Your task to perform on an android device: Check the weather Image 0: 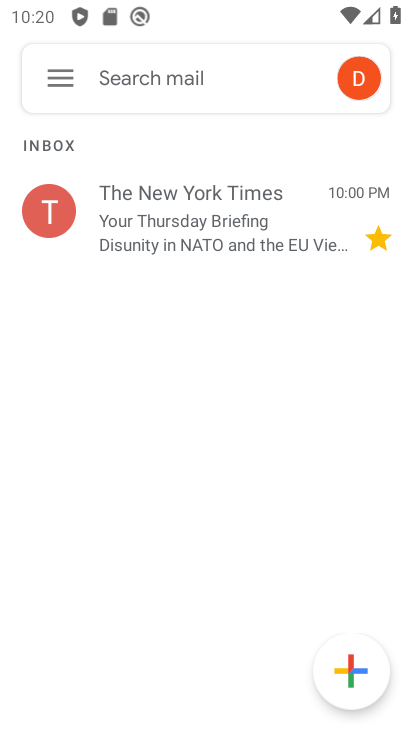
Step 0: press back button
Your task to perform on an android device: Check the weather Image 1: 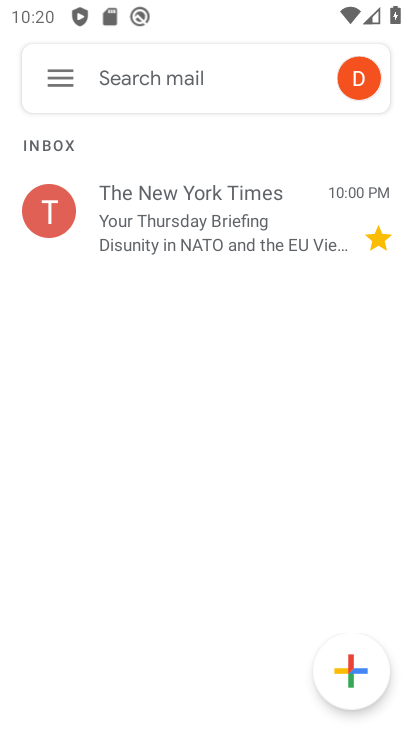
Step 1: press back button
Your task to perform on an android device: Check the weather Image 2: 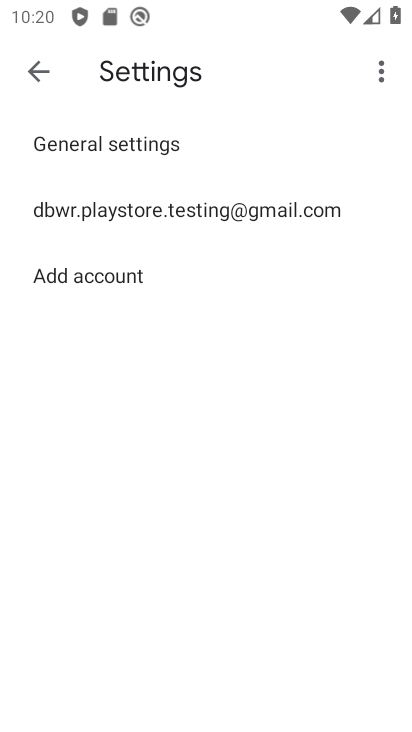
Step 2: press back button
Your task to perform on an android device: Check the weather Image 3: 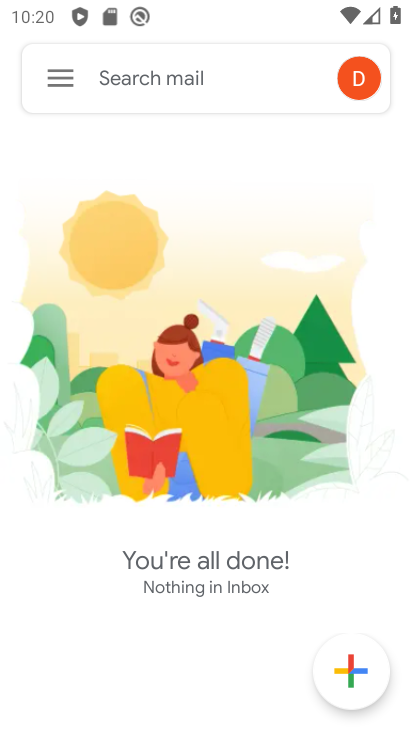
Step 3: press home button
Your task to perform on an android device: Check the weather Image 4: 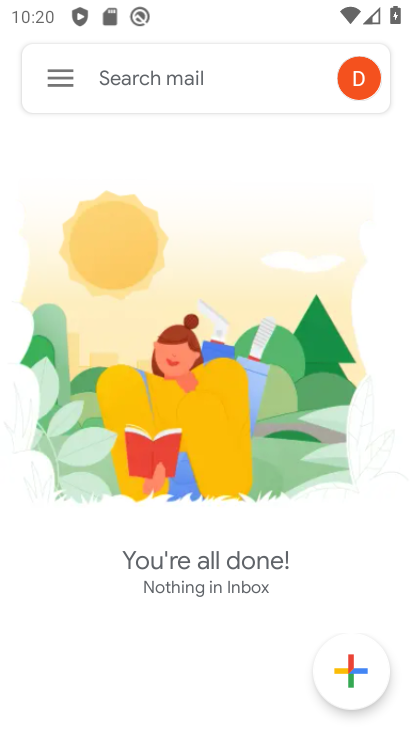
Step 4: press home button
Your task to perform on an android device: Check the weather Image 5: 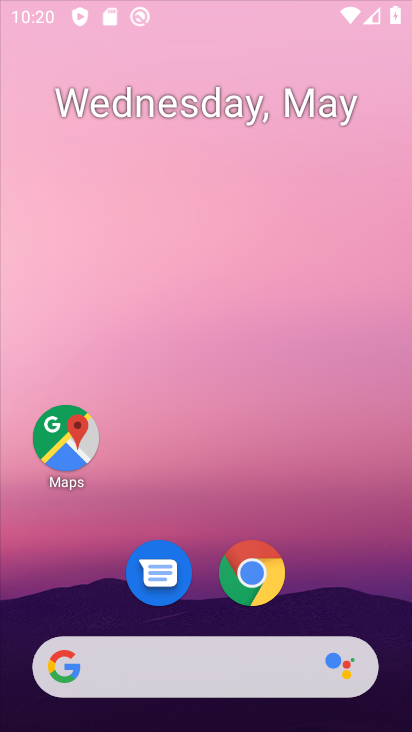
Step 5: press home button
Your task to perform on an android device: Check the weather Image 6: 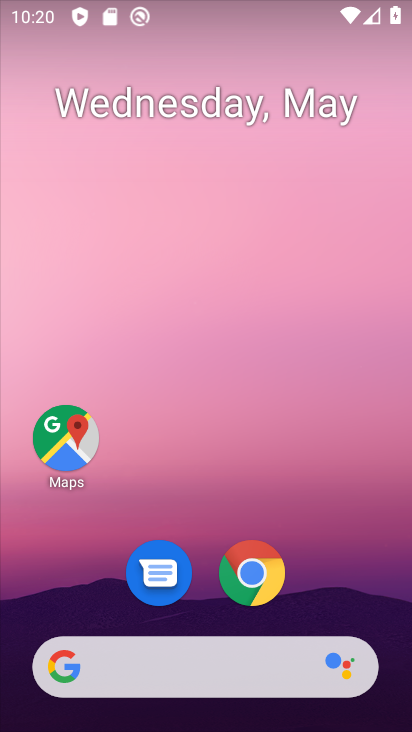
Step 6: drag from (8, 211) to (410, 362)
Your task to perform on an android device: Check the weather Image 7: 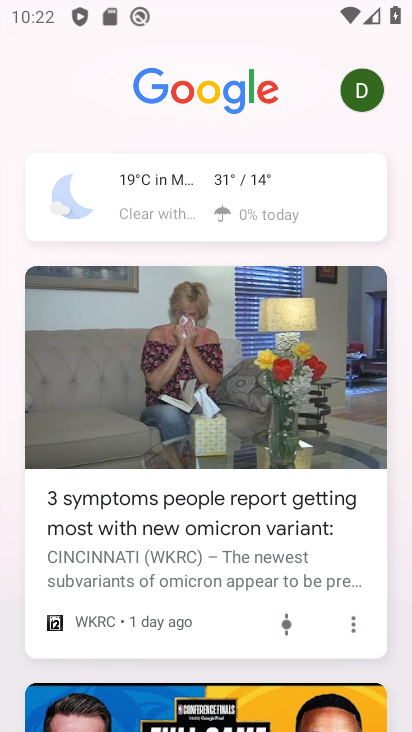
Step 7: click (167, 180)
Your task to perform on an android device: Check the weather Image 8: 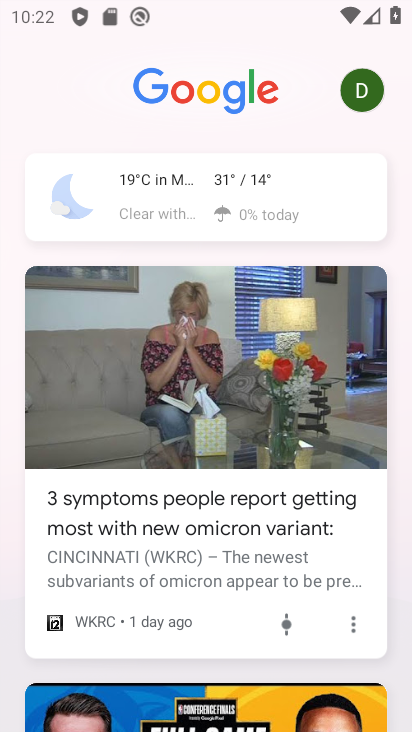
Step 8: click (199, 215)
Your task to perform on an android device: Check the weather Image 9: 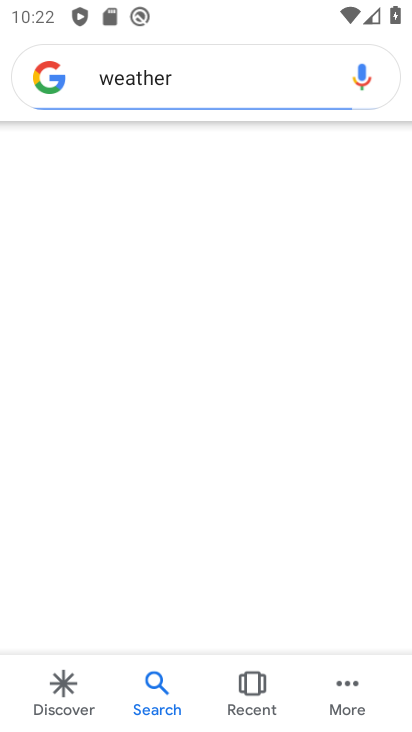
Step 9: click (219, 198)
Your task to perform on an android device: Check the weather Image 10: 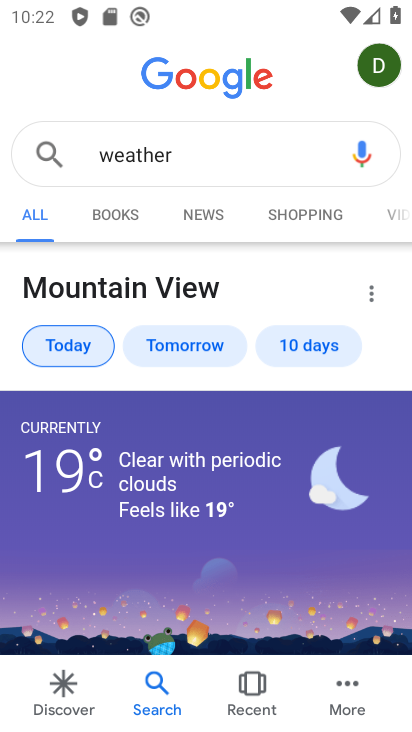
Step 10: drag from (213, 455) to (197, 114)
Your task to perform on an android device: Check the weather Image 11: 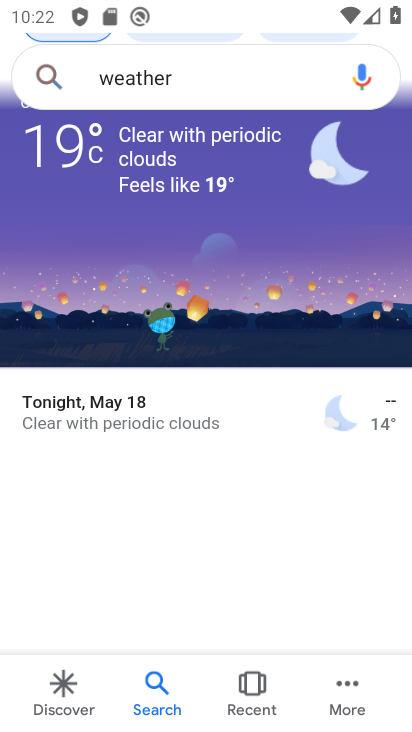
Step 11: drag from (214, 389) to (214, 52)
Your task to perform on an android device: Check the weather Image 12: 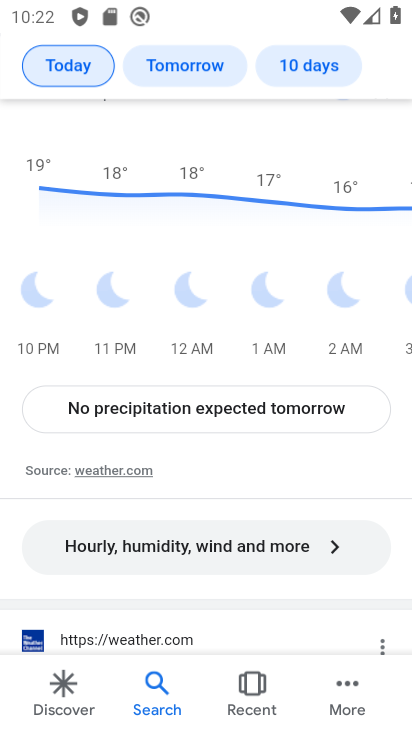
Step 12: drag from (190, 392) to (190, 15)
Your task to perform on an android device: Check the weather Image 13: 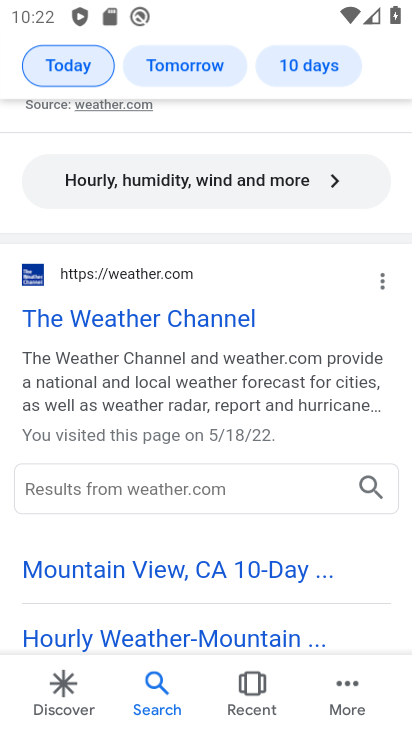
Step 13: drag from (181, 234) to (166, 17)
Your task to perform on an android device: Check the weather Image 14: 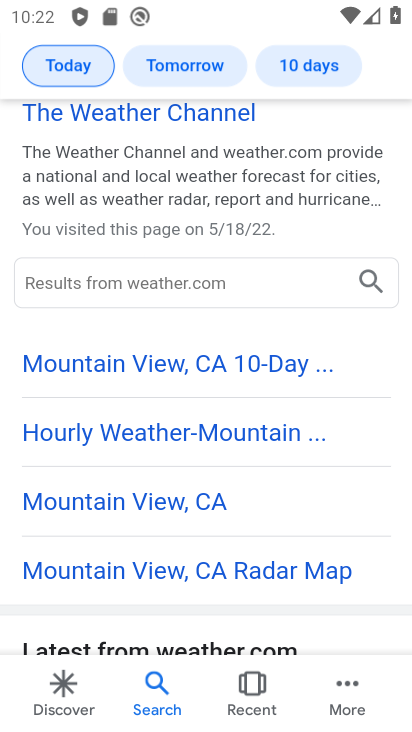
Step 14: drag from (178, 303) to (165, 95)
Your task to perform on an android device: Check the weather Image 15: 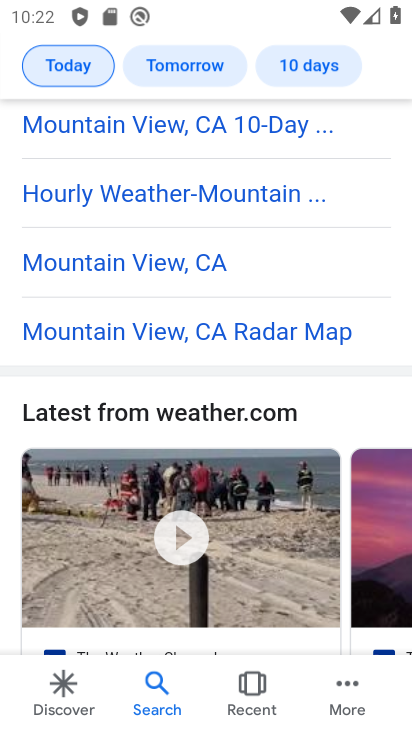
Step 15: drag from (203, 339) to (185, 51)
Your task to perform on an android device: Check the weather Image 16: 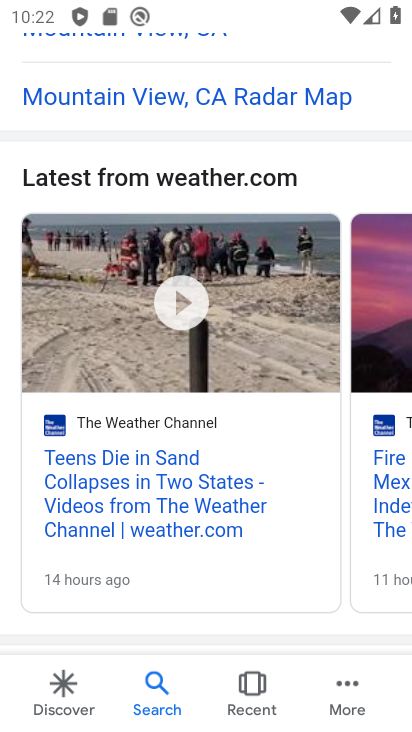
Step 16: drag from (236, 441) to (207, 42)
Your task to perform on an android device: Check the weather Image 17: 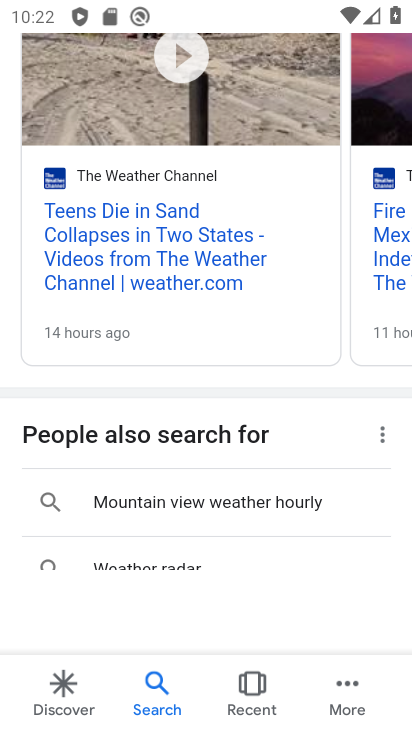
Step 17: drag from (243, 395) to (221, 101)
Your task to perform on an android device: Check the weather Image 18: 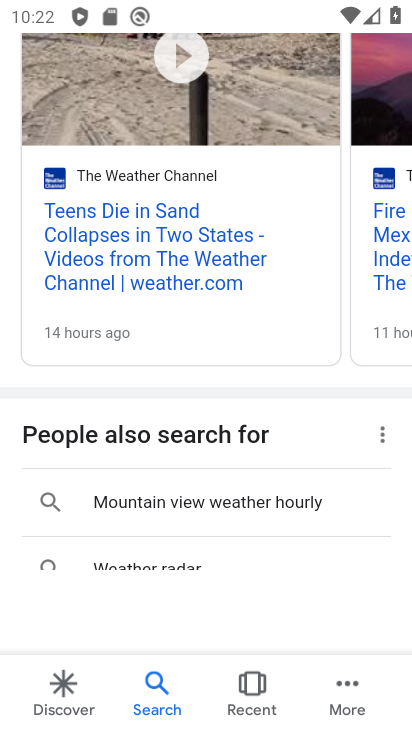
Step 18: drag from (228, 231) to (210, 94)
Your task to perform on an android device: Check the weather Image 19: 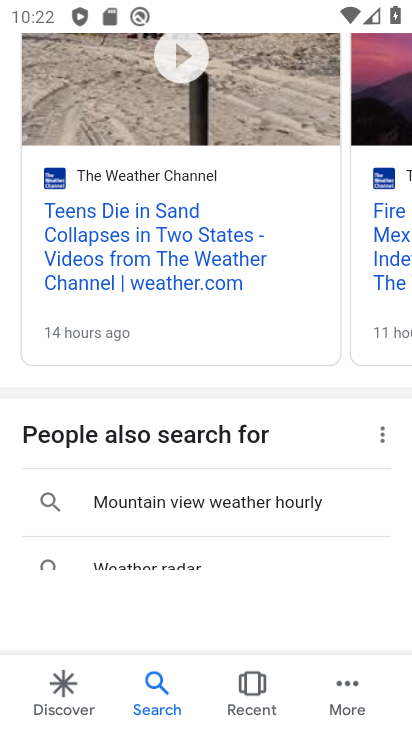
Step 19: drag from (227, 281) to (202, 68)
Your task to perform on an android device: Check the weather Image 20: 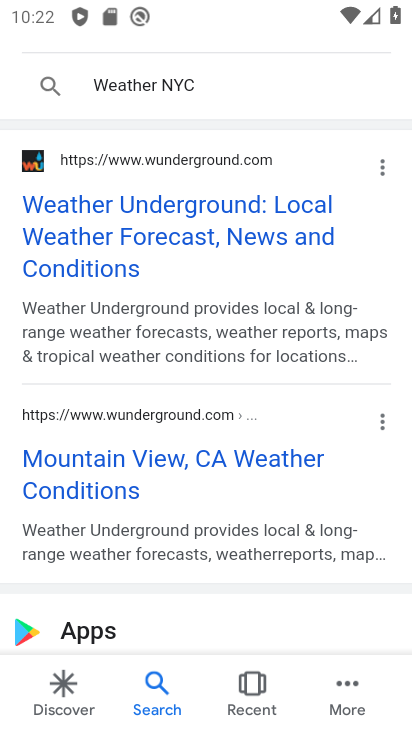
Step 20: drag from (235, 385) to (193, 52)
Your task to perform on an android device: Check the weather Image 21: 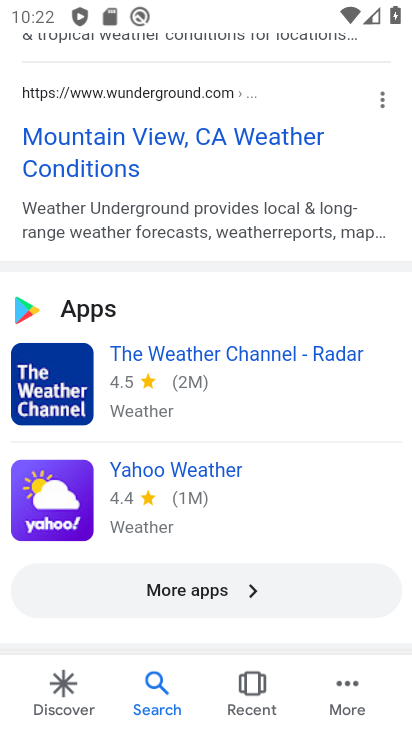
Step 21: drag from (193, 199) to (165, 0)
Your task to perform on an android device: Check the weather Image 22: 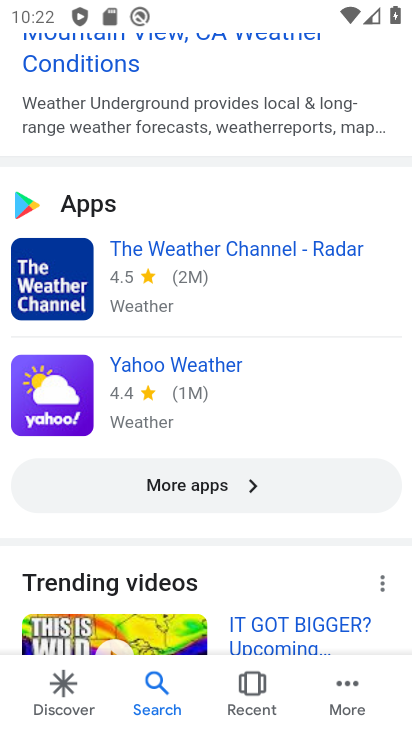
Step 22: drag from (198, 257) to (197, 13)
Your task to perform on an android device: Check the weather Image 23: 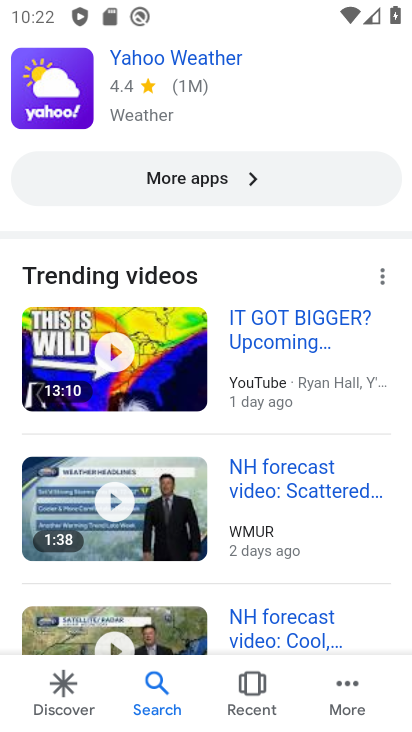
Step 23: click (150, 43)
Your task to perform on an android device: Check the weather Image 24: 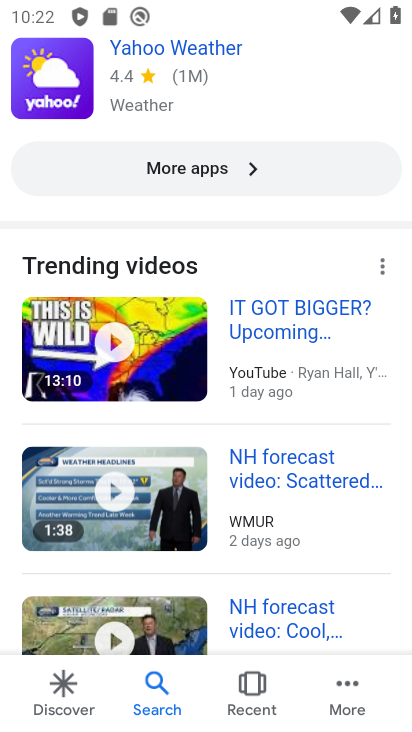
Step 24: task complete